Your task to perform on an android device: When is my next appointment? Image 0: 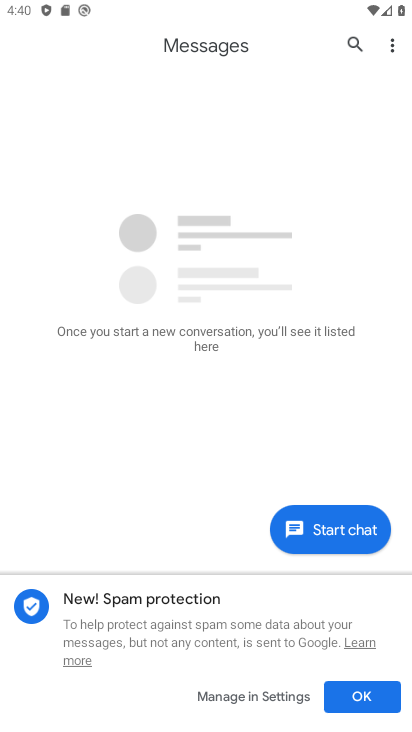
Step 0: press home button
Your task to perform on an android device: When is my next appointment? Image 1: 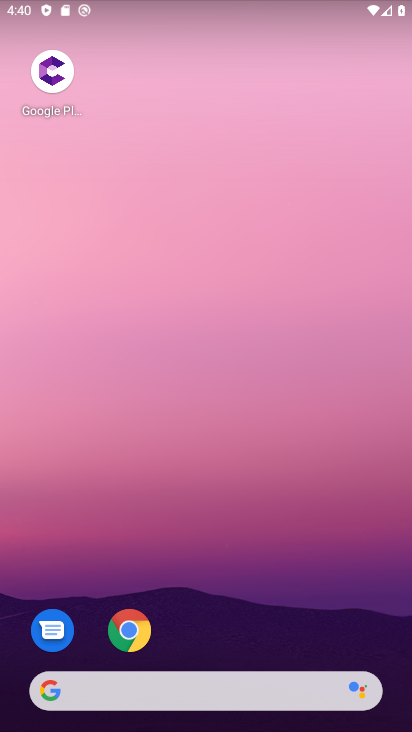
Step 1: drag from (303, 605) to (341, 87)
Your task to perform on an android device: When is my next appointment? Image 2: 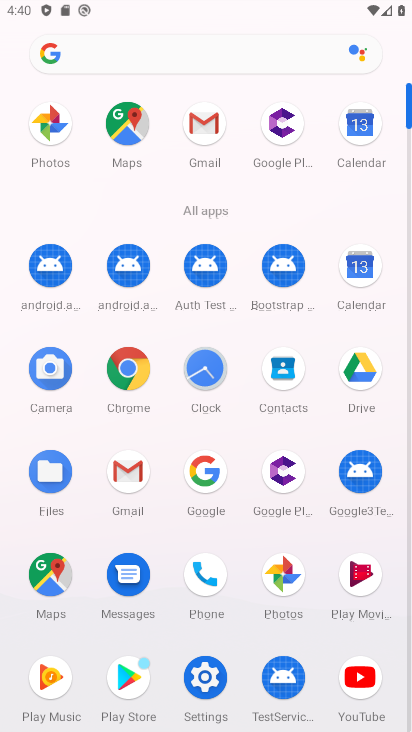
Step 2: click (356, 266)
Your task to perform on an android device: When is my next appointment? Image 3: 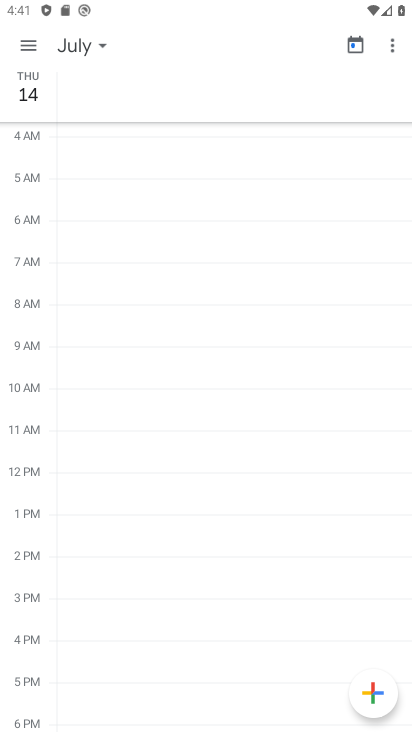
Step 3: click (24, 44)
Your task to perform on an android device: When is my next appointment? Image 4: 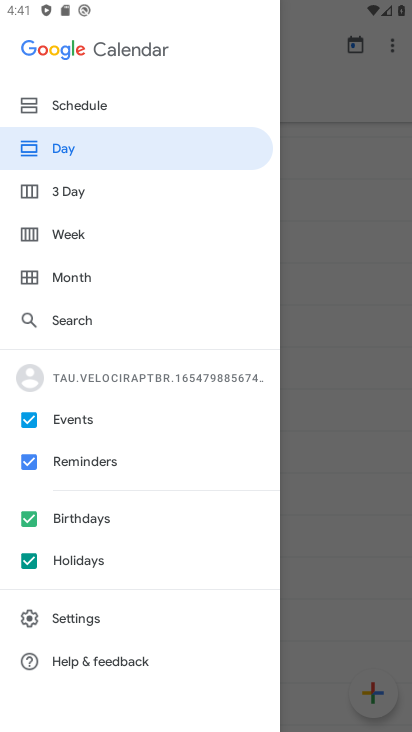
Step 4: click (66, 106)
Your task to perform on an android device: When is my next appointment? Image 5: 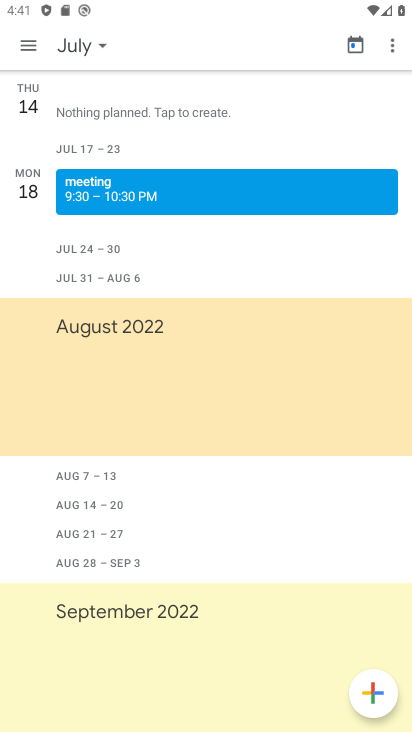
Step 5: task complete